Your task to perform on an android device: Open Google Maps and go to "Timeline" Image 0: 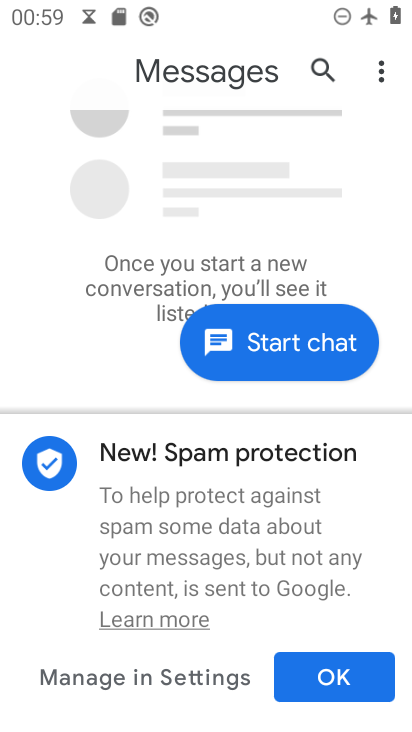
Step 0: press home button
Your task to perform on an android device: Open Google Maps and go to "Timeline" Image 1: 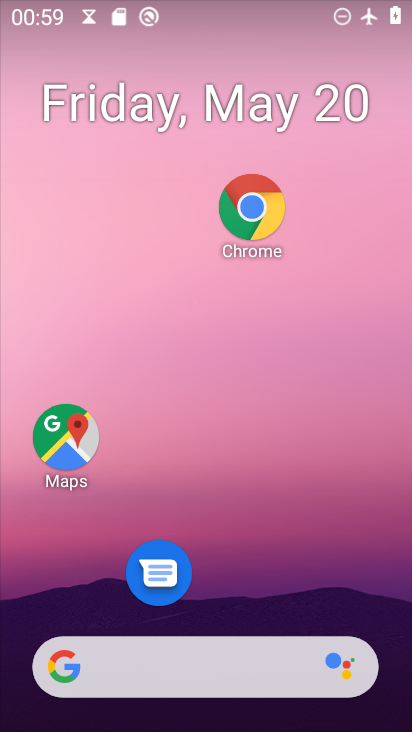
Step 1: click (72, 451)
Your task to perform on an android device: Open Google Maps and go to "Timeline" Image 2: 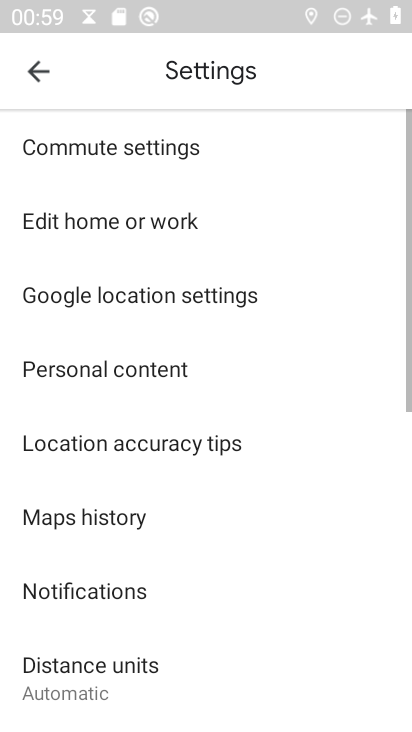
Step 2: click (19, 72)
Your task to perform on an android device: Open Google Maps and go to "Timeline" Image 3: 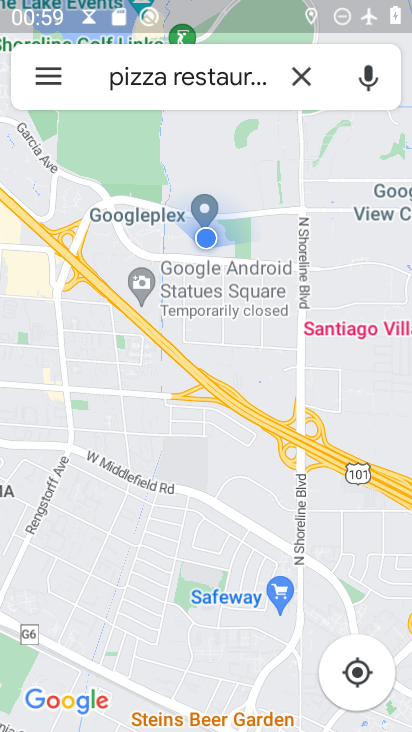
Step 3: click (41, 70)
Your task to perform on an android device: Open Google Maps and go to "Timeline" Image 4: 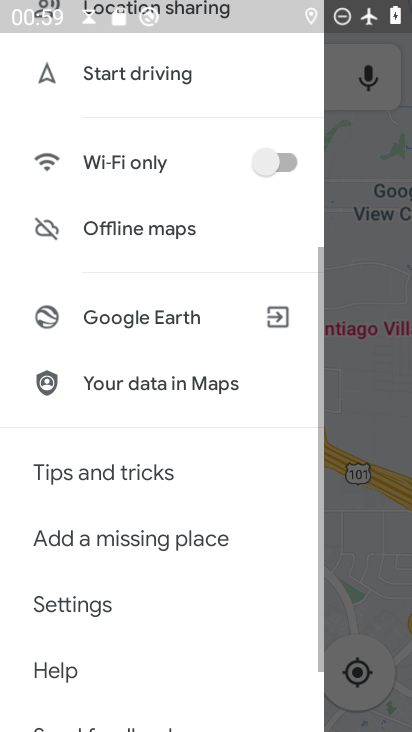
Step 4: drag from (168, 180) to (210, 532)
Your task to perform on an android device: Open Google Maps and go to "Timeline" Image 5: 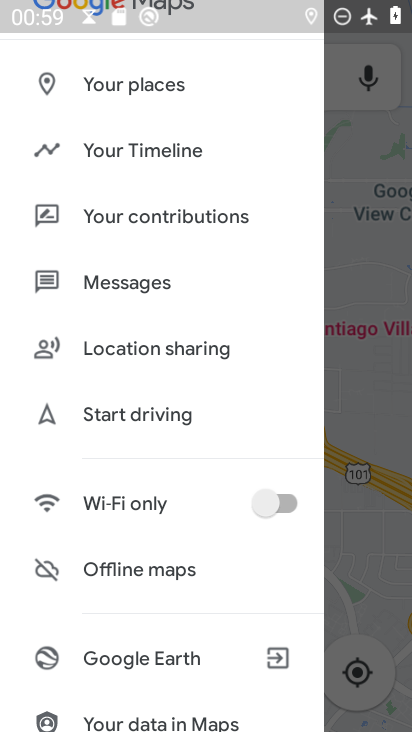
Step 5: click (186, 142)
Your task to perform on an android device: Open Google Maps and go to "Timeline" Image 6: 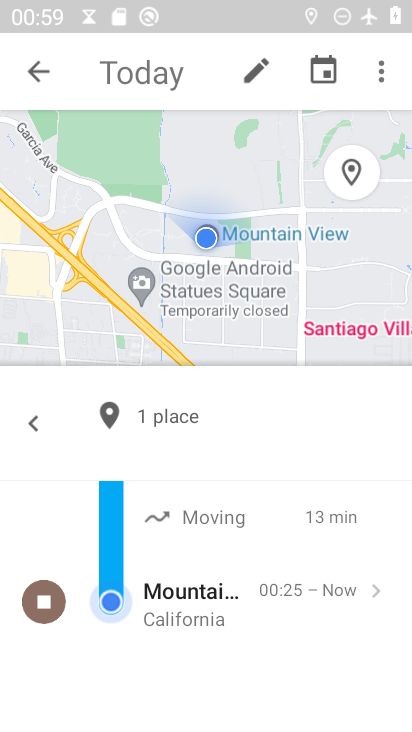
Step 6: task complete